Your task to perform on an android device: toggle sleep mode Image 0: 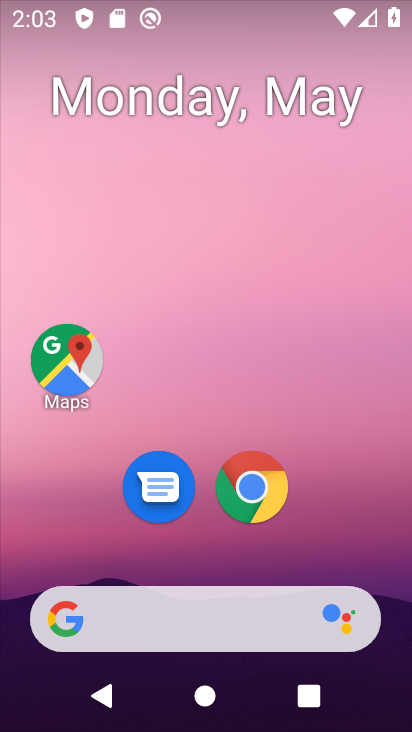
Step 0: drag from (372, 565) to (378, 40)
Your task to perform on an android device: toggle sleep mode Image 1: 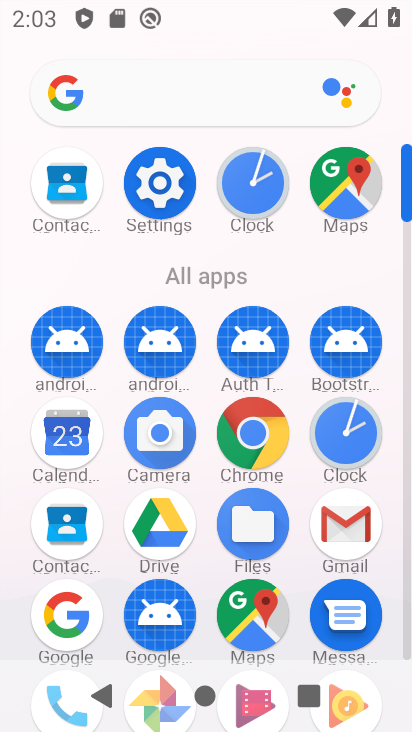
Step 1: click (408, 653)
Your task to perform on an android device: toggle sleep mode Image 2: 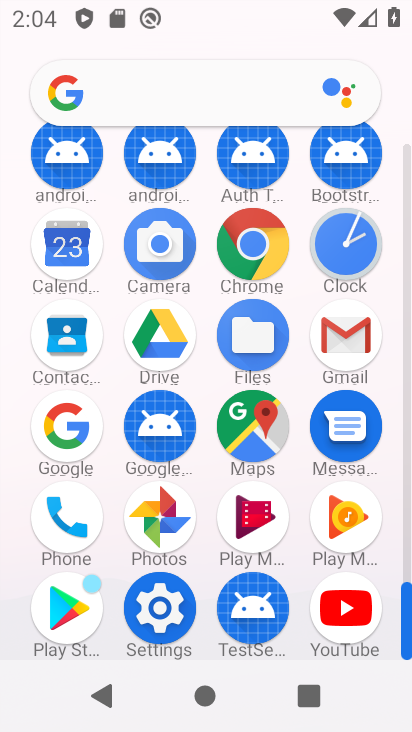
Step 2: click (173, 586)
Your task to perform on an android device: toggle sleep mode Image 3: 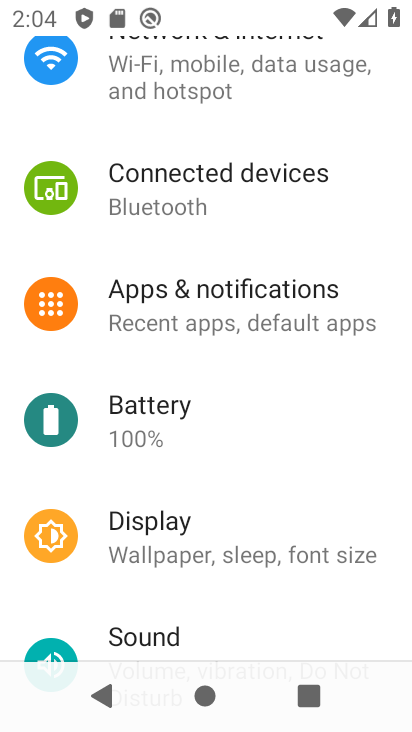
Step 3: click (222, 533)
Your task to perform on an android device: toggle sleep mode Image 4: 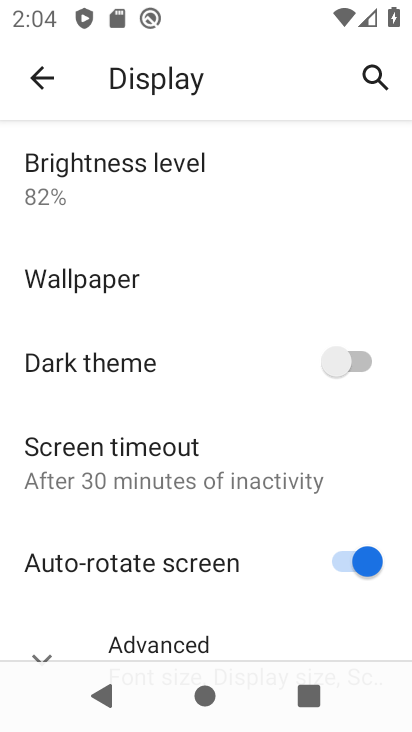
Step 4: drag from (242, 602) to (252, 321)
Your task to perform on an android device: toggle sleep mode Image 5: 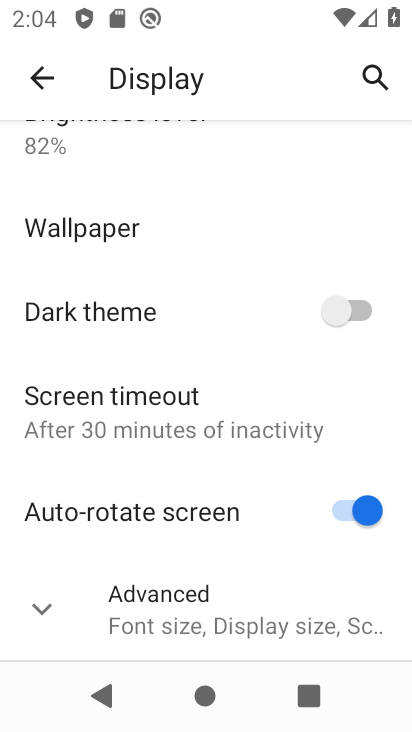
Step 5: click (256, 614)
Your task to perform on an android device: toggle sleep mode Image 6: 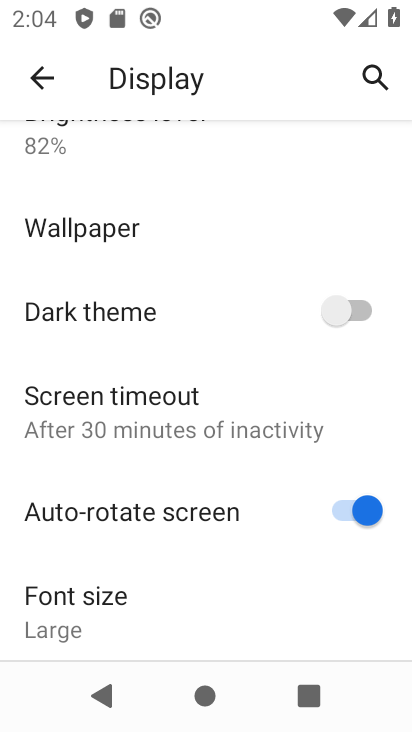
Step 6: task complete